Your task to perform on an android device: check data usage Image 0: 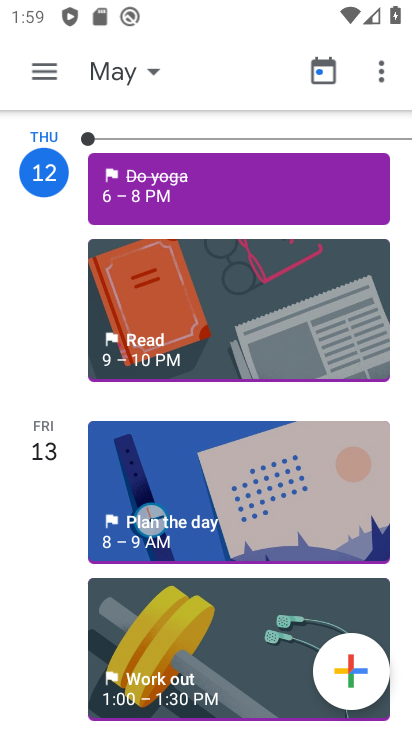
Step 0: drag from (217, 573) to (252, 258)
Your task to perform on an android device: check data usage Image 1: 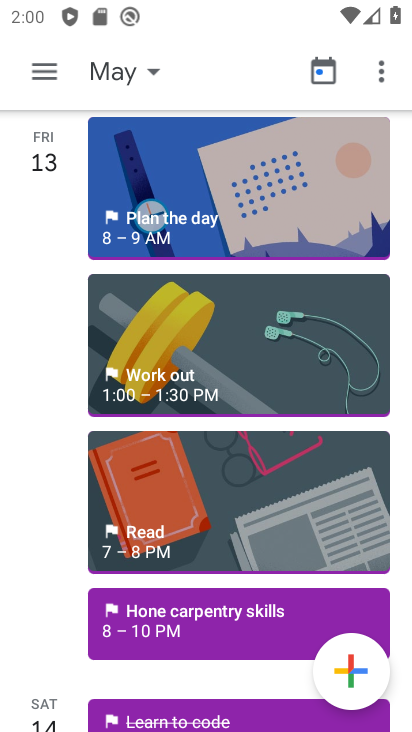
Step 1: press home button
Your task to perform on an android device: check data usage Image 2: 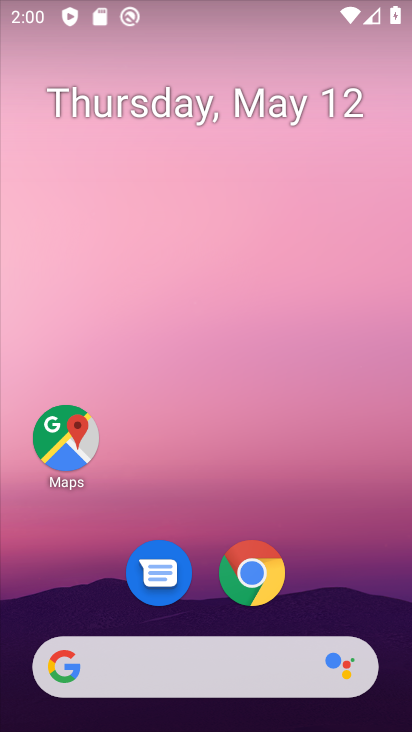
Step 2: drag from (200, 597) to (201, 151)
Your task to perform on an android device: check data usage Image 3: 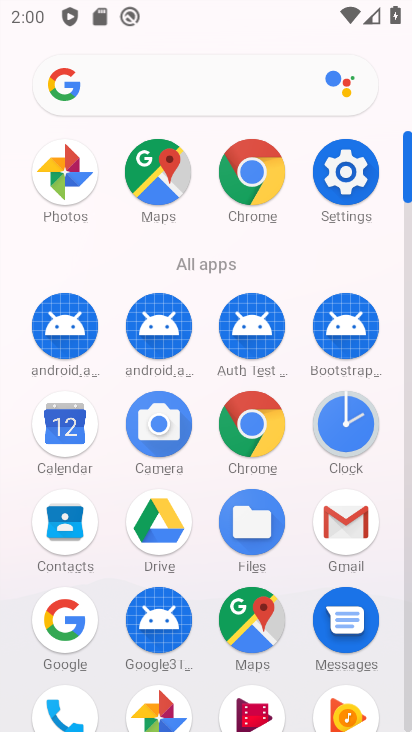
Step 3: click (358, 170)
Your task to perform on an android device: check data usage Image 4: 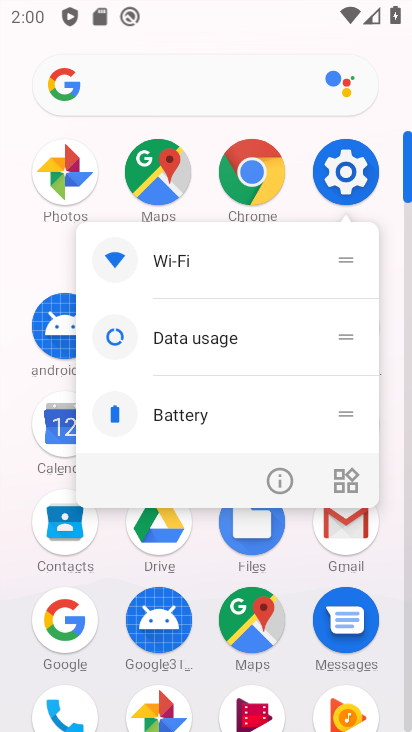
Step 4: click (196, 322)
Your task to perform on an android device: check data usage Image 5: 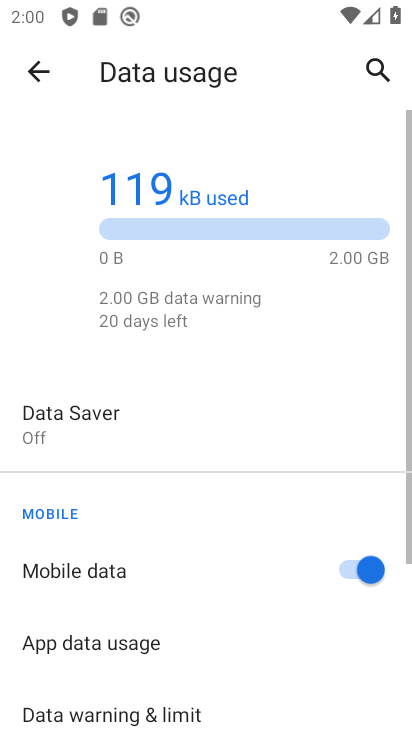
Step 5: task complete